Your task to perform on an android device: change the clock style Image 0: 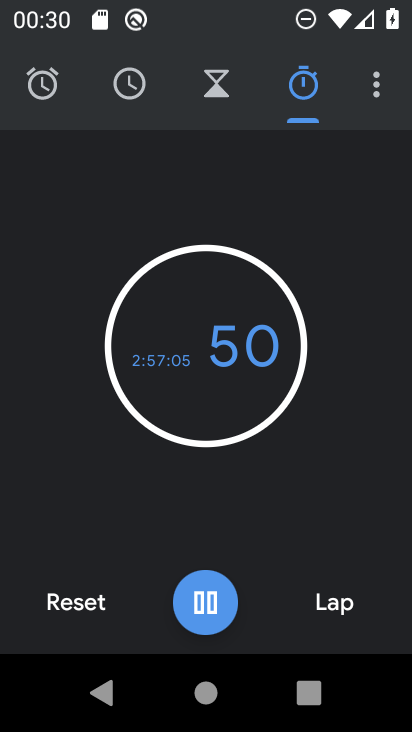
Step 0: click (381, 96)
Your task to perform on an android device: change the clock style Image 1: 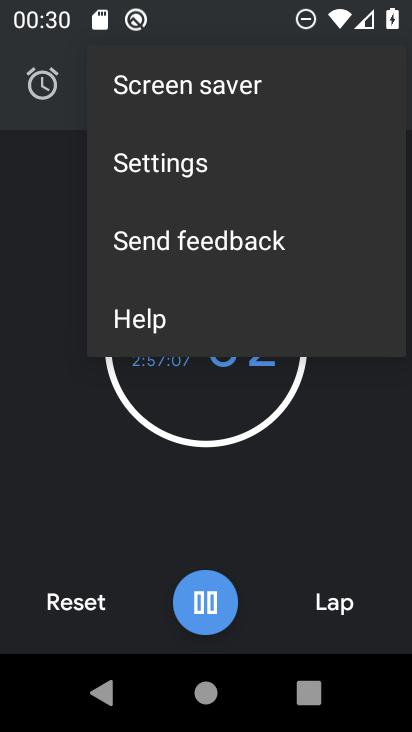
Step 1: click (164, 176)
Your task to perform on an android device: change the clock style Image 2: 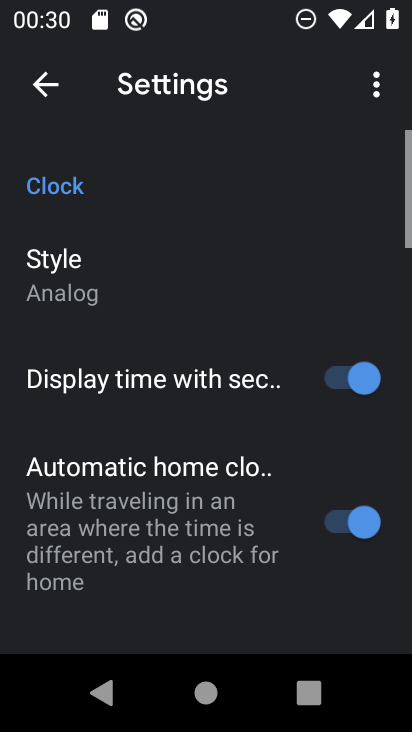
Step 2: click (160, 262)
Your task to perform on an android device: change the clock style Image 3: 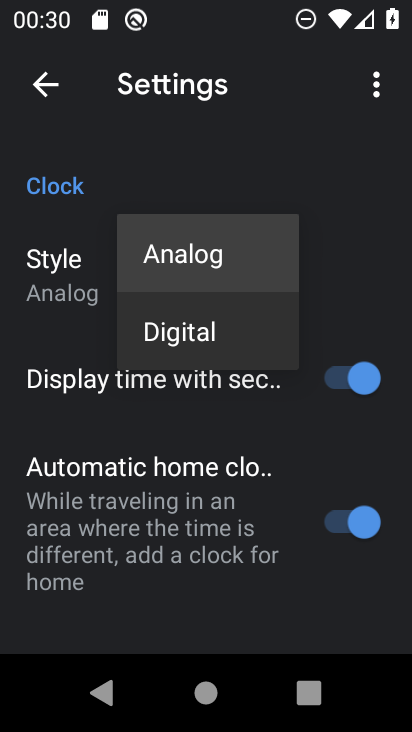
Step 3: click (191, 319)
Your task to perform on an android device: change the clock style Image 4: 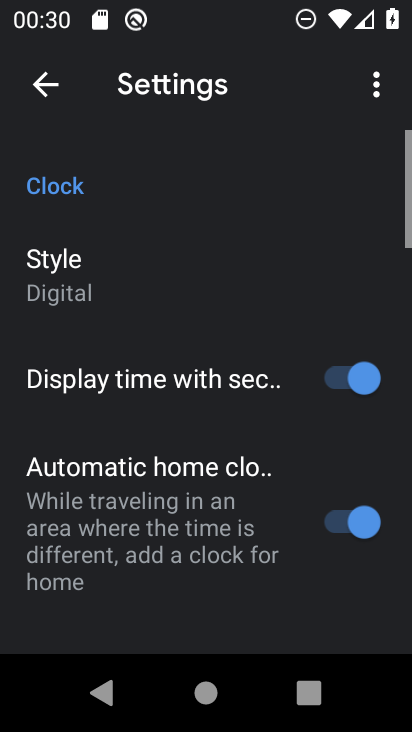
Step 4: task complete